Your task to perform on an android device: Open the stopwatch Image 0: 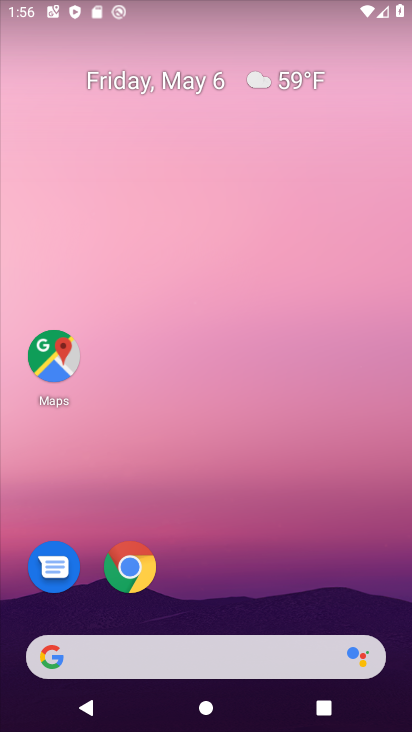
Step 0: drag from (393, 619) to (344, 94)
Your task to perform on an android device: Open the stopwatch Image 1: 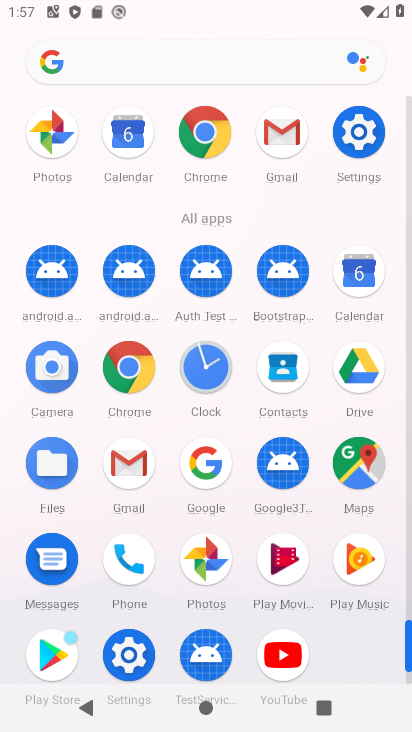
Step 1: click (200, 365)
Your task to perform on an android device: Open the stopwatch Image 2: 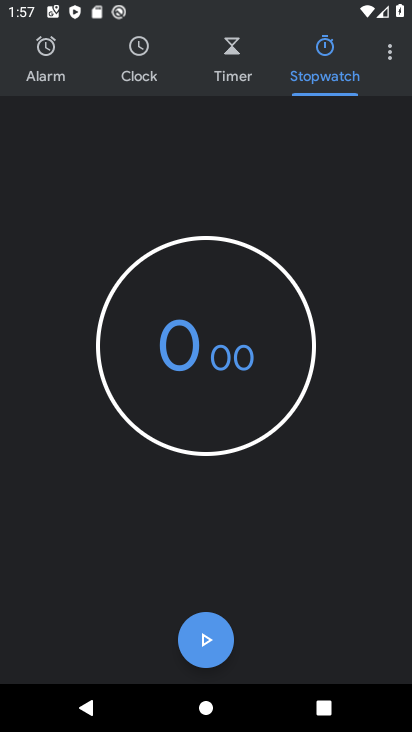
Step 2: task complete